Your task to perform on an android device: choose inbox layout in the gmail app Image 0: 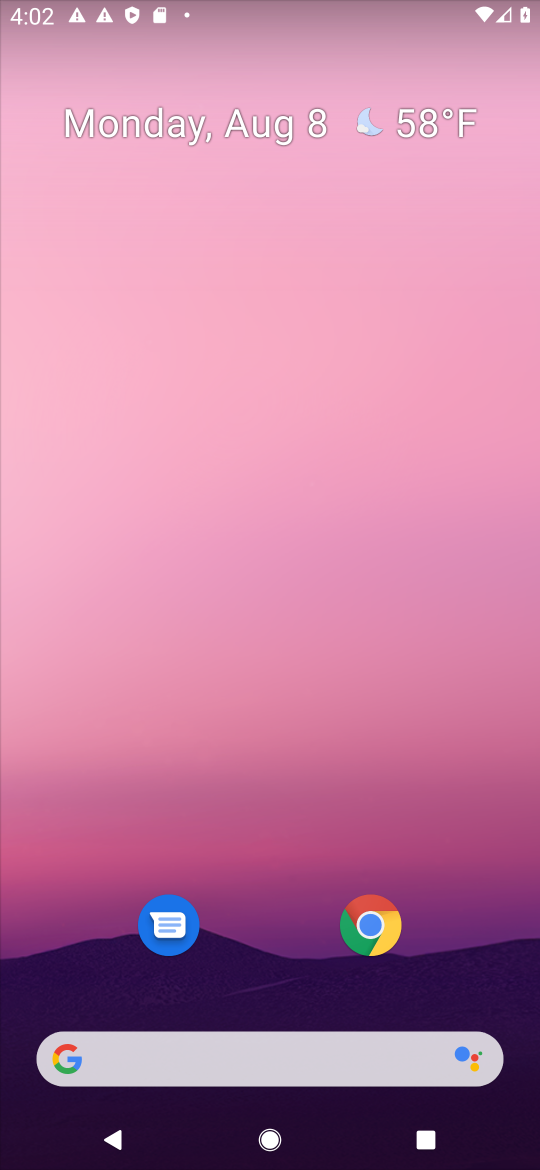
Step 0: drag from (275, 847) to (226, 82)
Your task to perform on an android device: choose inbox layout in the gmail app Image 1: 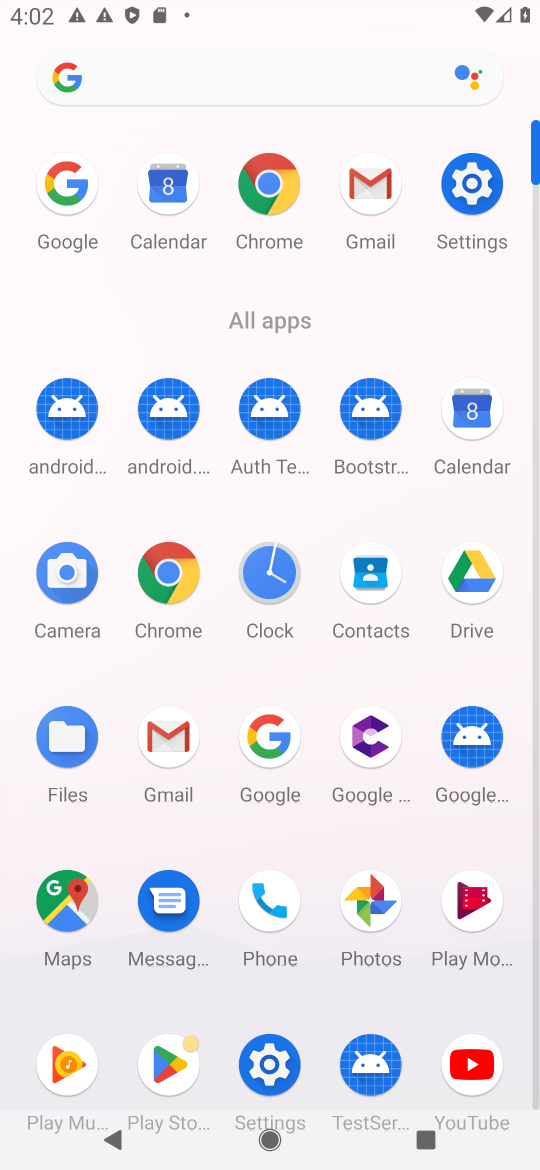
Step 1: click (171, 731)
Your task to perform on an android device: choose inbox layout in the gmail app Image 2: 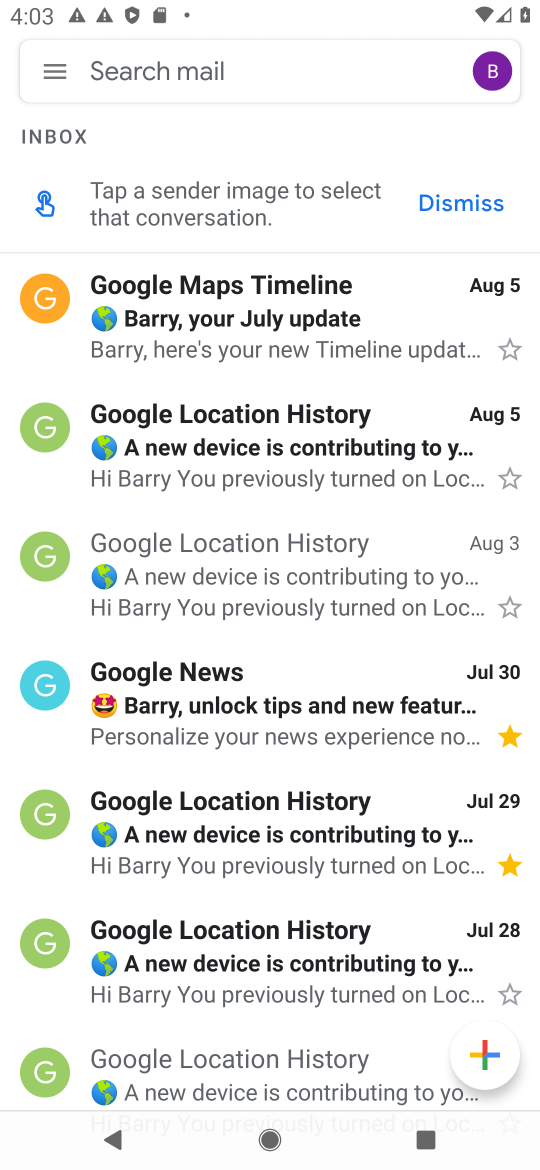
Step 2: click (51, 83)
Your task to perform on an android device: choose inbox layout in the gmail app Image 3: 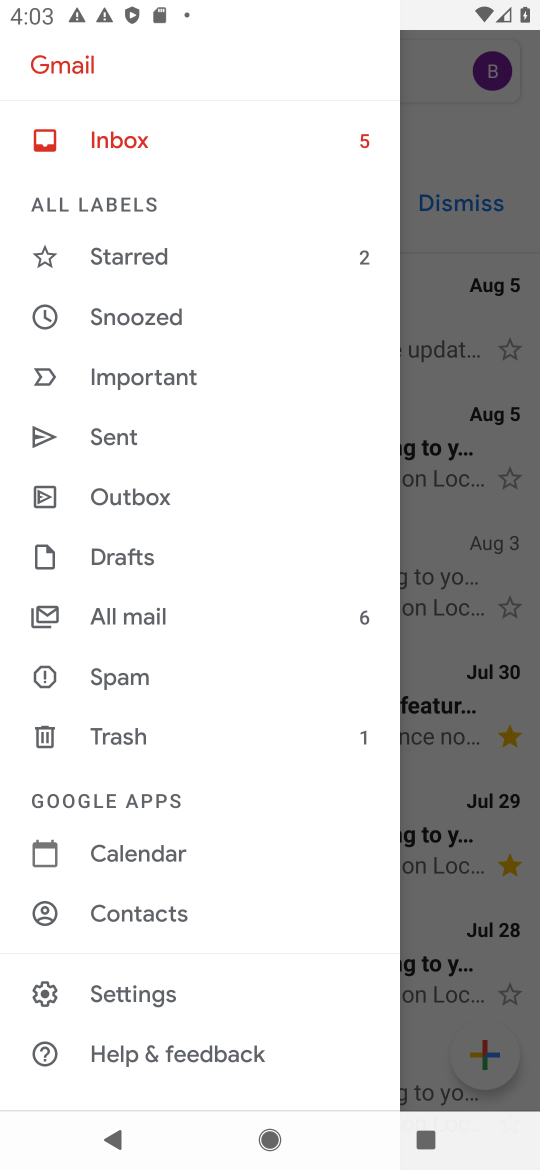
Step 3: click (135, 1000)
Your task to perform on an android device: choose inbox layout in the gmail app Image 4: 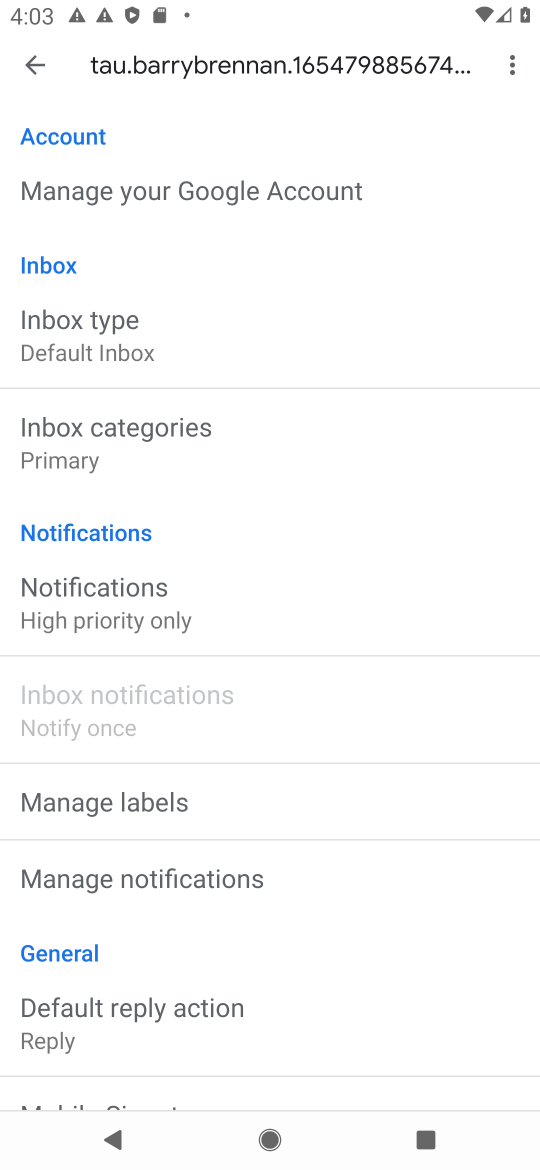
Step 4: click (71, 319)
Your task to perform on an android device: choose inbox layout in the gmail app Image 5: 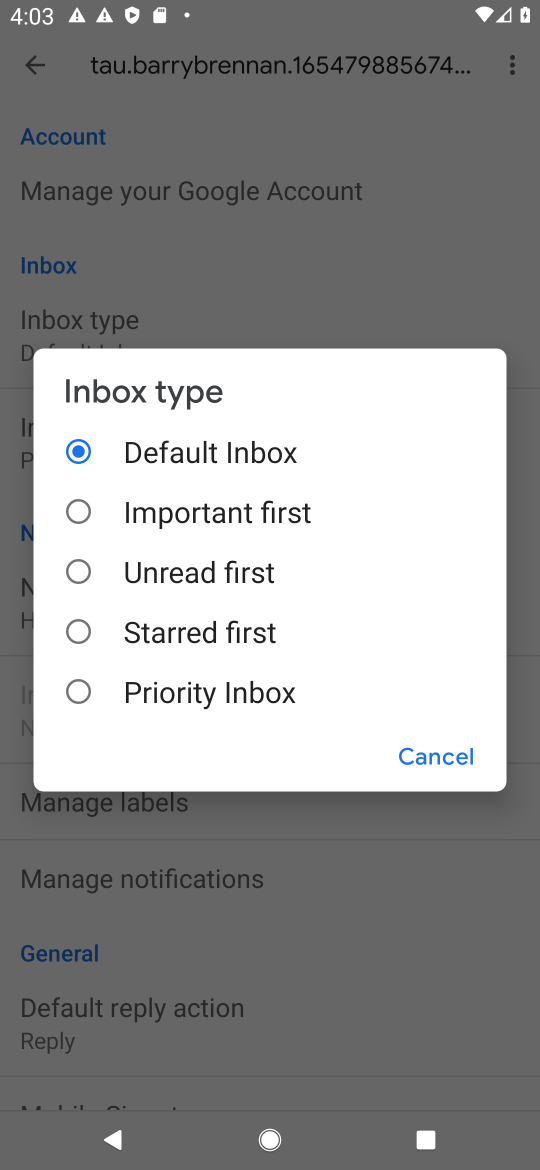
Step 5: click (79, 632)
Your task to perform on an android device: choose inbox layout in the gmail app Image 6: 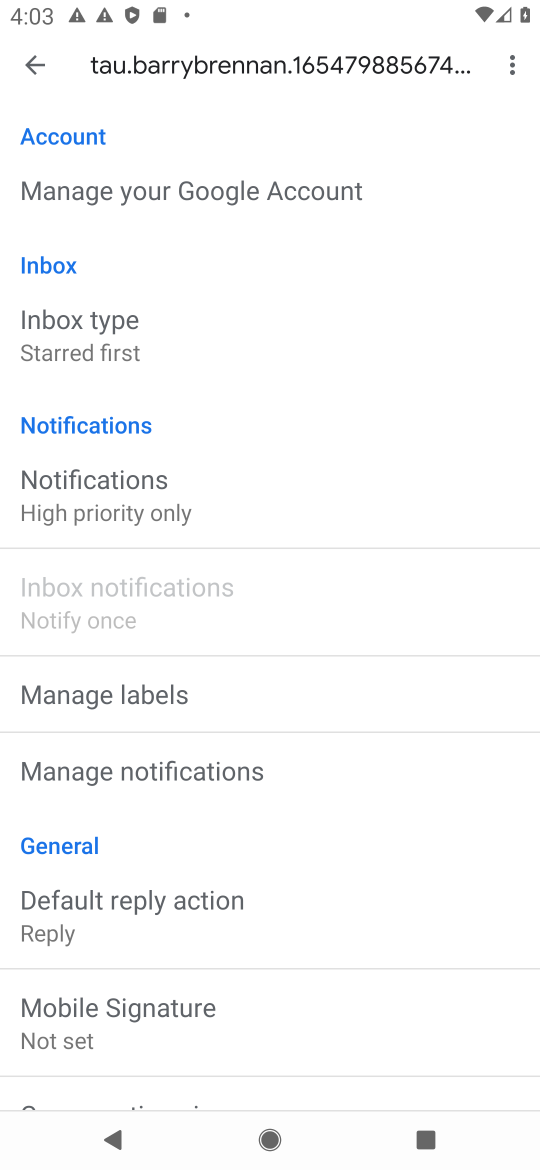
Step 6: task complete